Your task to perform on an android device: Open ESPN.com Image 0: 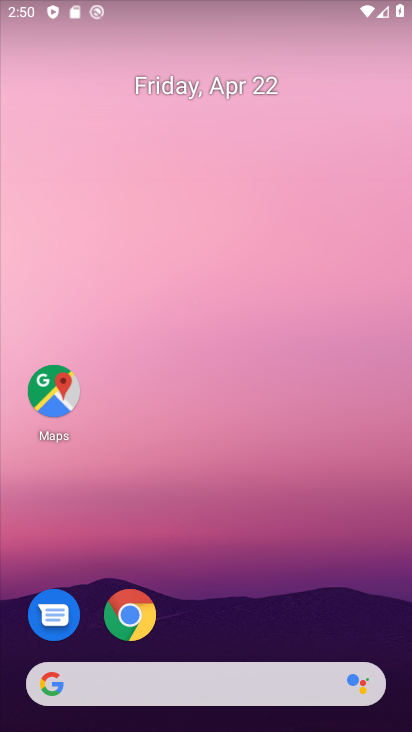
Step 0: click (128, 618)
Your task to perform on an android device: Open ESPN.com Image 1: 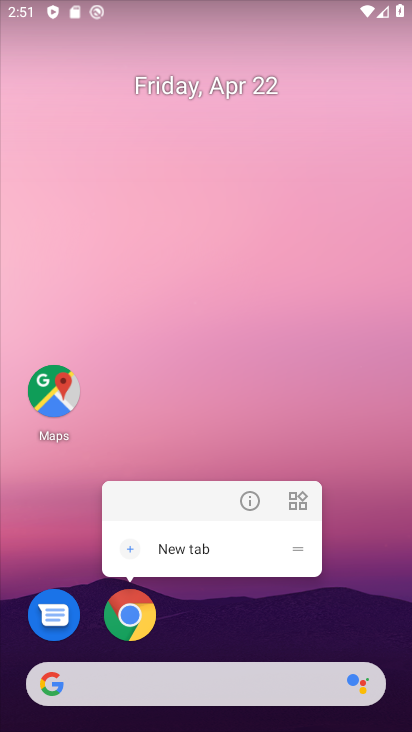
Step 1: click (128, 618)
Your task to perform on an android device: Open ESPN.com Image 2: 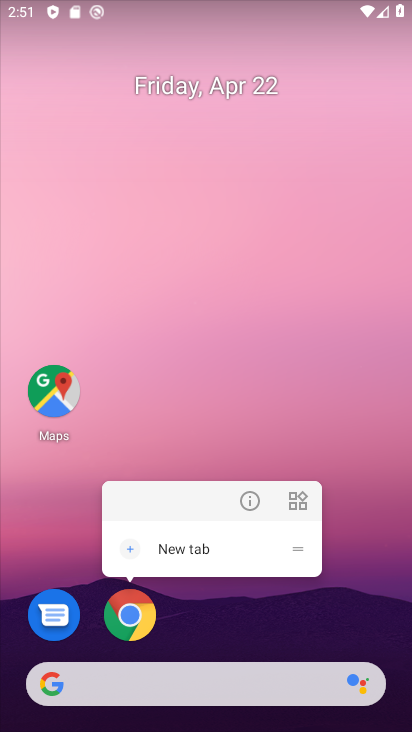
Step 2: click (128, 618)
Your task to perform on an android device: Open ESPN.com Image 3: 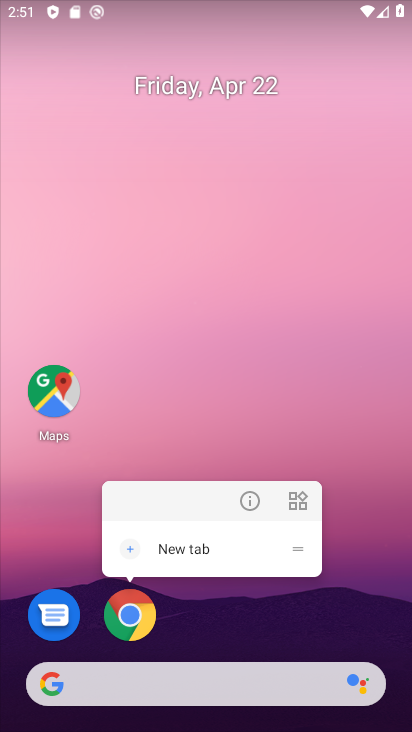
Step 3: click (128, 618)
Your task to perform on an android device: Open ESPN.com Image 4: 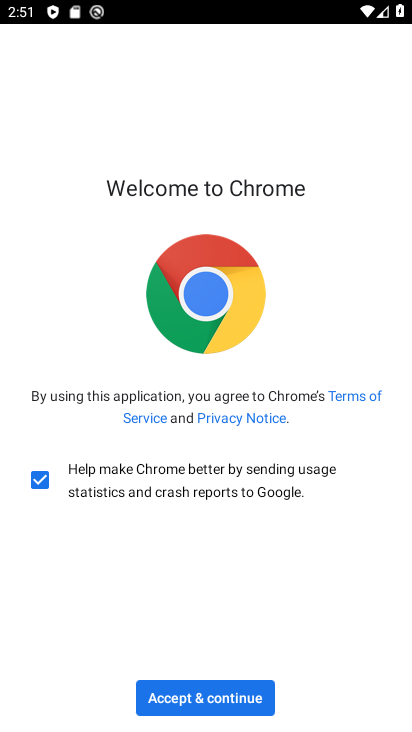
Step 4: click (201, 698)
Your task to perform on an android device: Open ESPN.com Image 5: 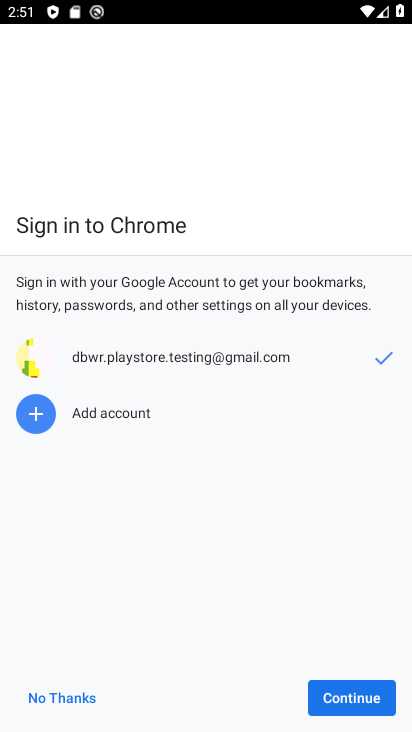
Step 5: click (68, 699)
Your task to perform on an android device: Open ESPN.com Image 6: 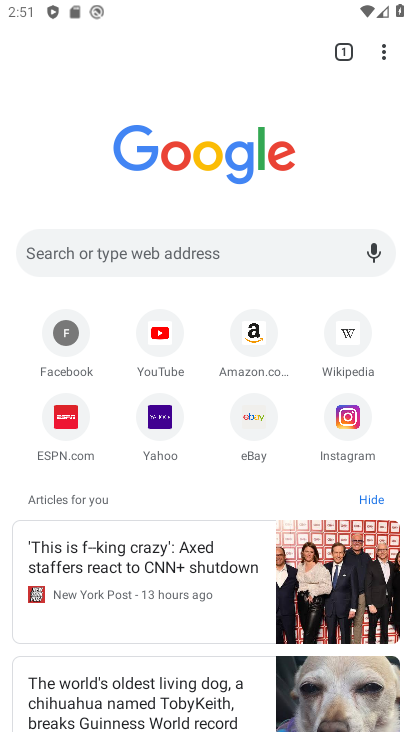
Step 6: click (68, 426)
Your task to perform on an android device: Open ESPN.com Image 7: 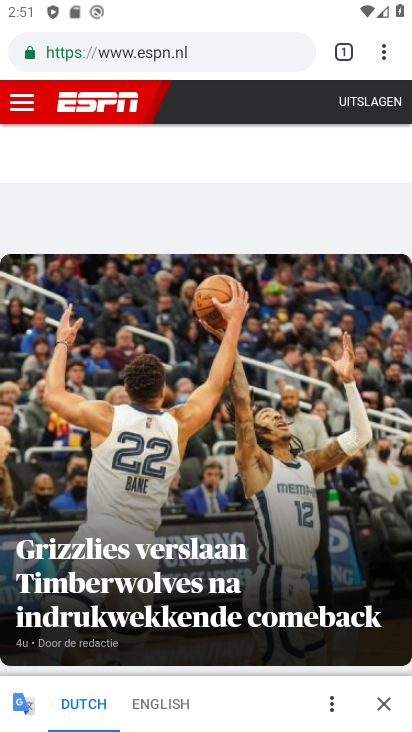
Step 7: task complete